Your task to perform on an android device: find photos in the google photos app Image 0: 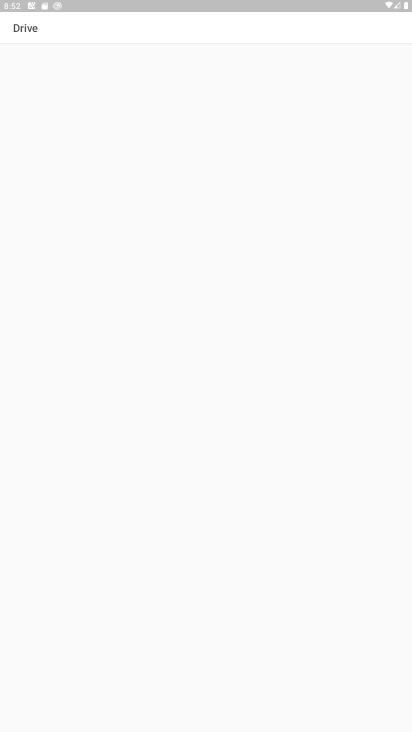
Step 0: press home button
Your task to perform on an android device: find photos in the google photos app Image 1: 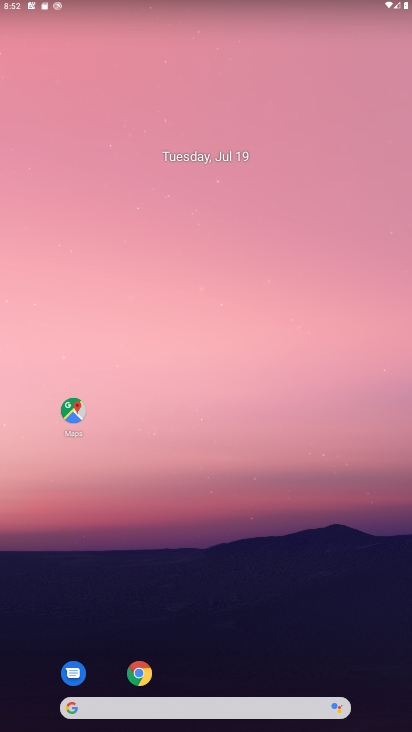
Step 1: drag from (272, 650) to (258, 70)
Your task to perform on an android device: find photos in the google photos app Image 2: 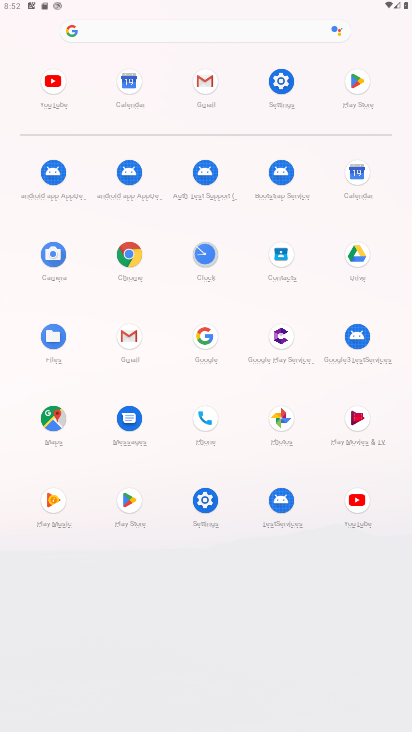
Step 2: click (282, 418)
Your task to perform on an android device: find photos in the google photos app Image 3: 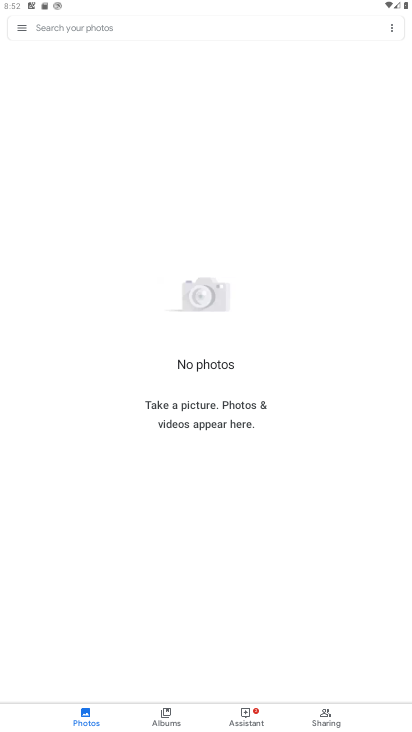
Step 3: task complete